Your task to perform on an android device: clear history in the chrome app Image 0: 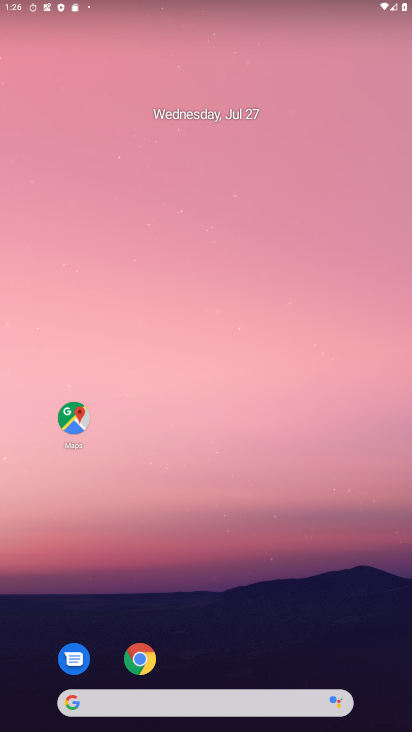
Step 0: press home button
Your task to perform on an android device: clear history in the chrome app Image 1: 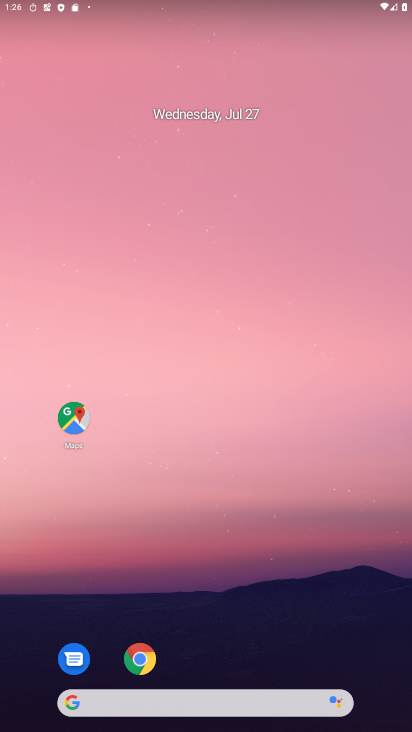
Step 1: click (141, 653)
Your task to perform on an android device: clear history in the chrome app Image 2: 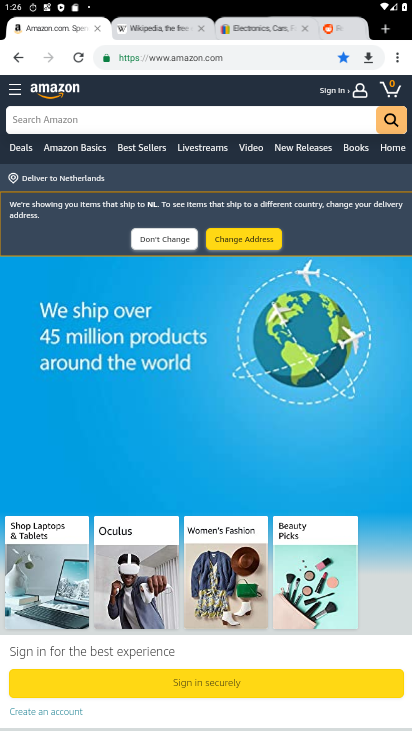
Step 2: click (394, 49)
Your task to perform on an android device: clear history in the chrome app Image 3: 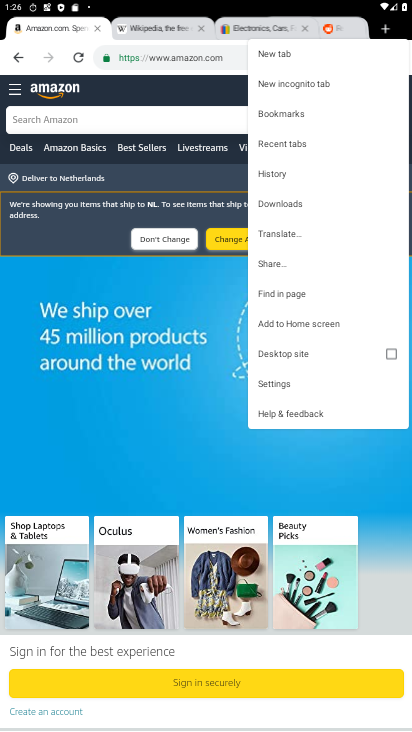
Step 3: click (288, 173)
Your task to perform on an android device: clear history in the chrome app Image 4: 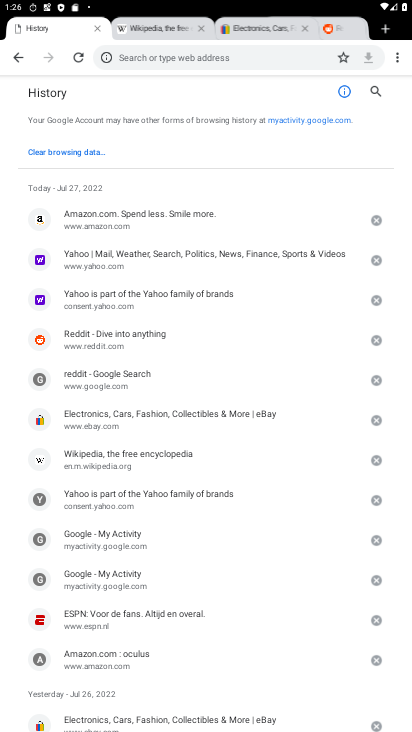
Step 4: click (72, 145)
Your task to perform on an android device: clear history in the chrome app Image 5: 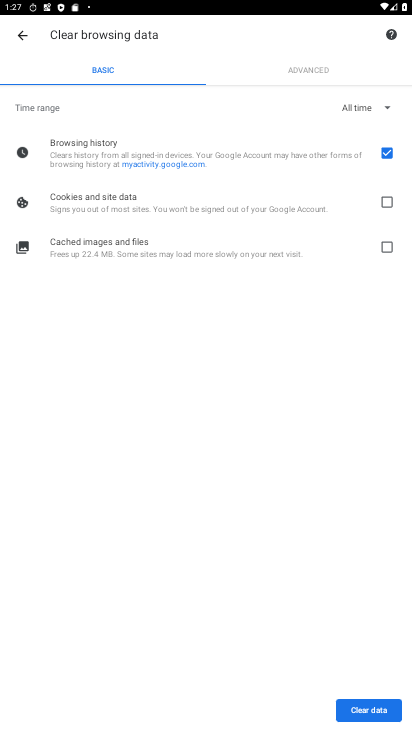
Step 5: click (378, 194)
Your task to perform on an android device: clear history in the chrome app Image 6: 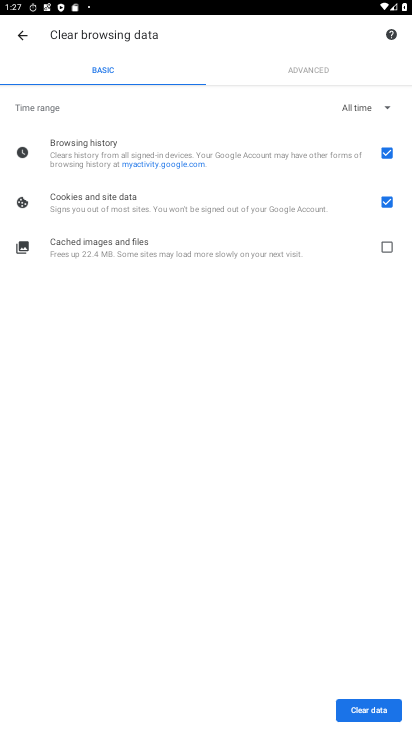
Step 6: click (385, 239)
Your task to perform on an android device: clear history in the chrome app Image 7: 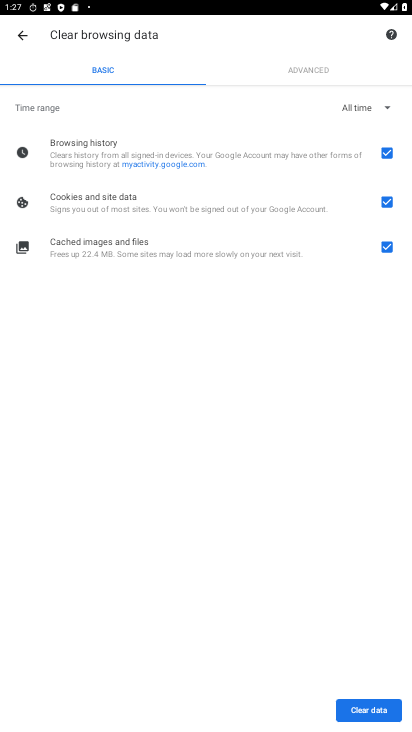
Step 7: click (380, 705)
Your task to perform on an android device: clear history in the chrome app Image 8: 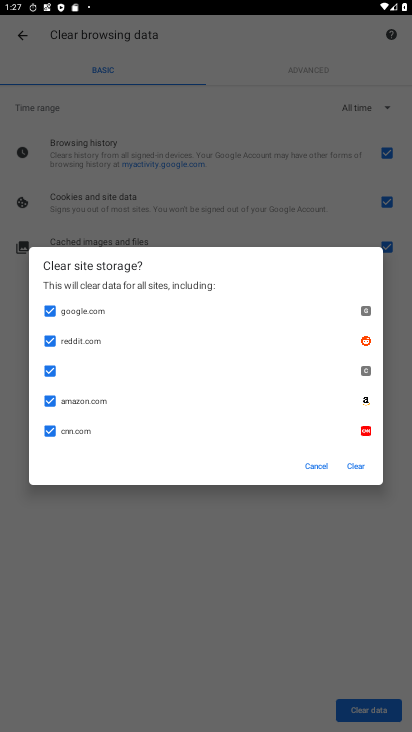
Step 8: click (351, 466)
Your task to perform on an android device: clear history in the chrome app Image 9: 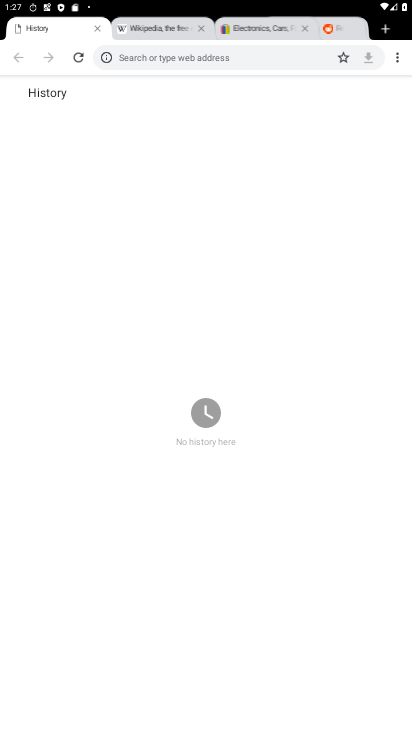
Step 9: task complete